Your task to perform on an android device: See recent photos Image 0: 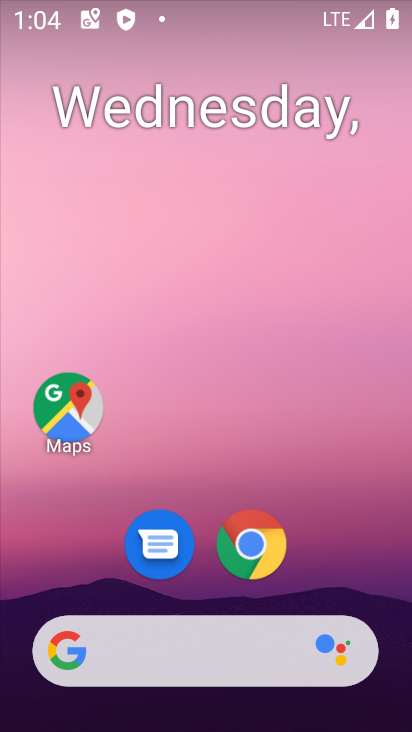
Step 0: drag from (387, 634) to (288, 104)
Your task to perform on an android device: See recent photos Image 1: 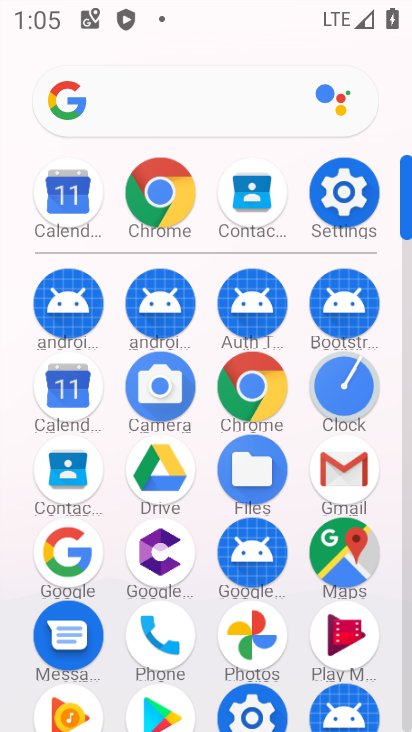
Step 1: click (274, 638)
Your task to perform on an android device: See recent photos Image 2: 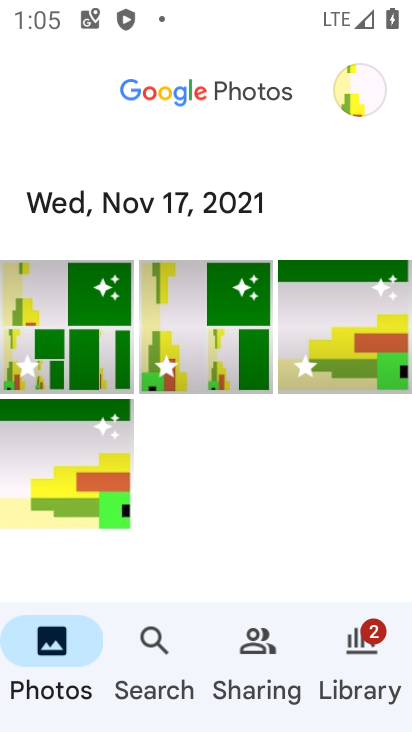
Step 2: click (52, 299)
Your task to perform on an android device: See recent photos Image 3: 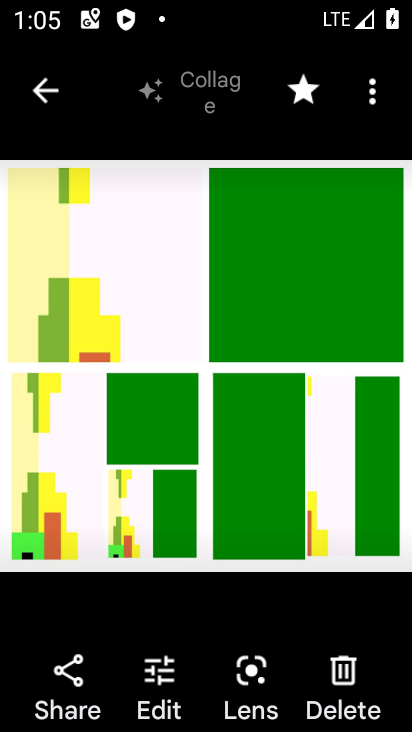
Step 3: task complete